Your task to perform on an android device: Set the phone to "Do not disturb". Image 0: 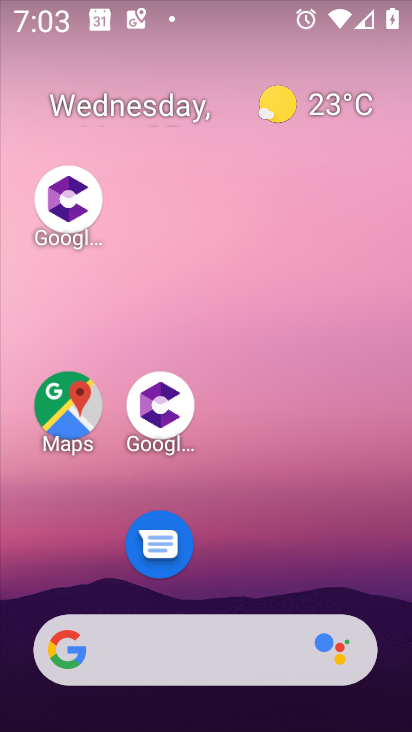
Step 0: drag from (306, 529) to (184, 88)
Your task to perform on an android device: Set the phone to "Do not disturb". Image 1: 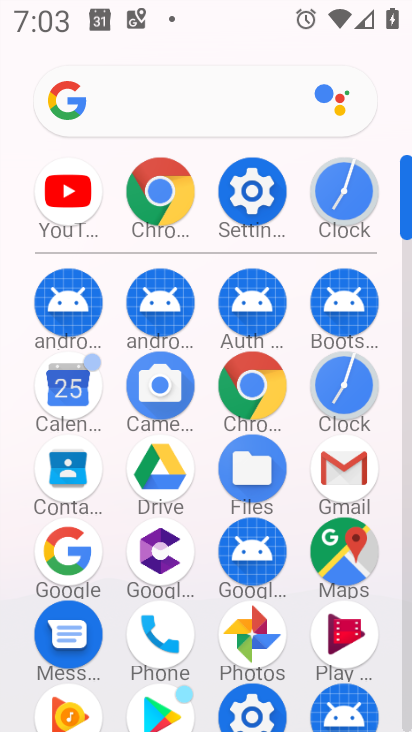
Step 1: click (256, 192)
Your task to perform on an android device: Set the phone to "Do not disturb". Image 2: 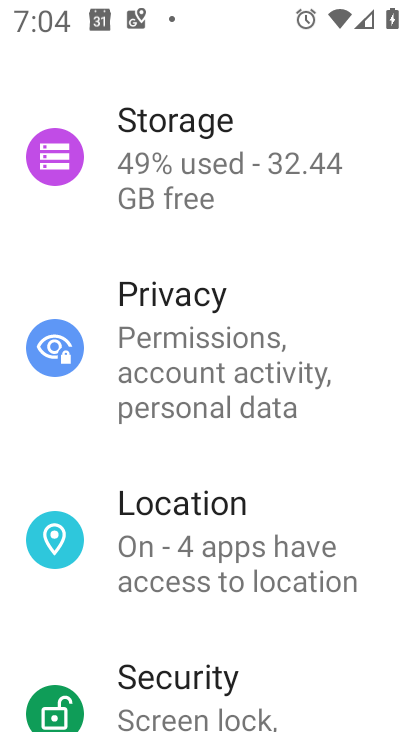
Step 2: drag from (258, 229) to (359, 731)
Your task to perform on an android device: Set the phone to "Do not disturb". Image 3: 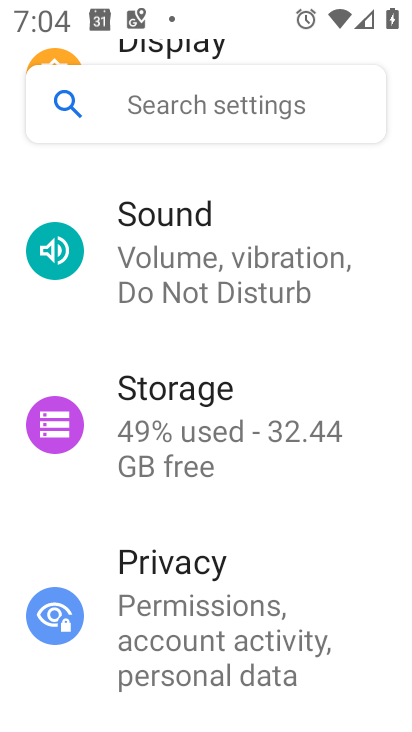
Step 3: click (172, 249)
Your task to perform on an android device: Set the phone to "Do not disturb". Image 4: 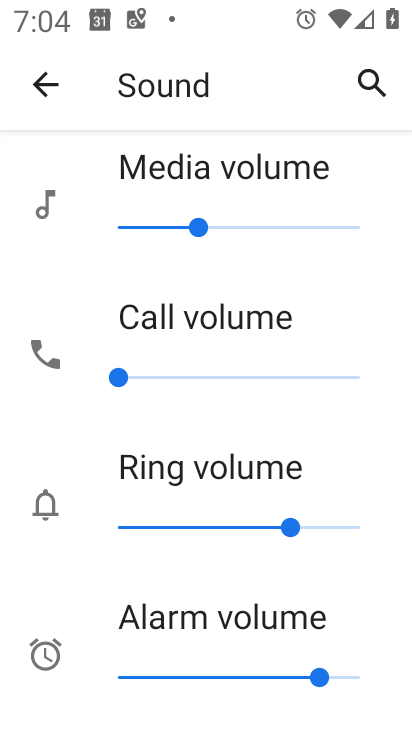
Step 4: drag from (229, 563) to (223, 270)
Your task to perform on an android device: Set the phone to "Do not disturb". Image 5: 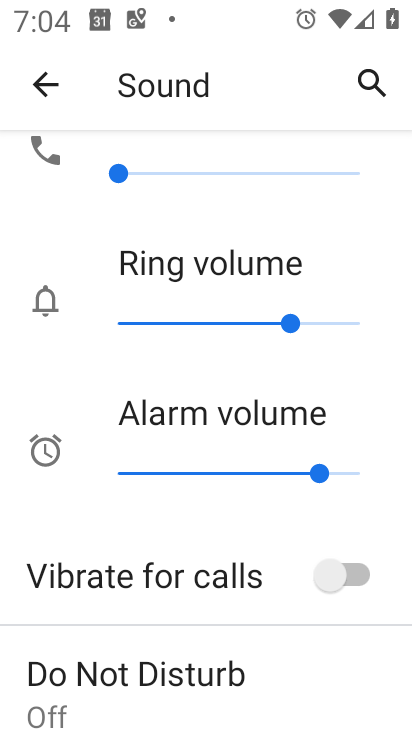
Step 5: click (95, 677)
Your task to perform on an android device: Set the phone to "Do not disturb". Image 6: 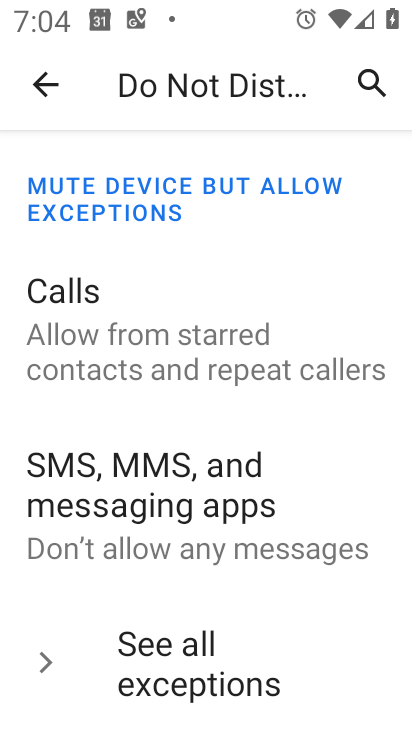
Step 6: drag from (300, 580) to (232, 189)
Your task to perform on an android device: Set the phone to "Do not disturb". Image 7: 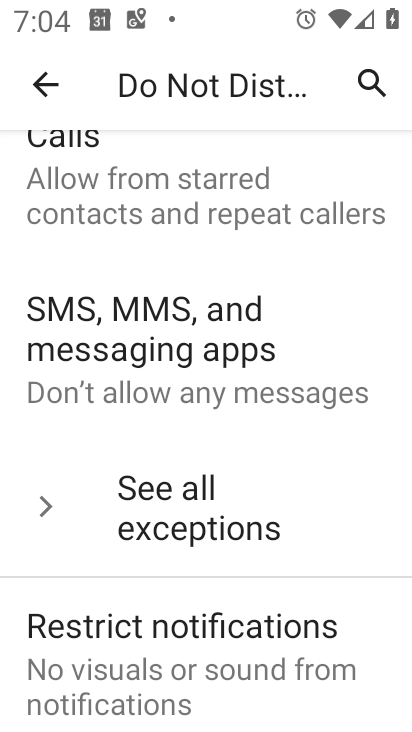
Step 7: drag from (297, 449) to (244, 114)
Your task to perform on an android device: Set the phone to "Do not disturb". Image 8: 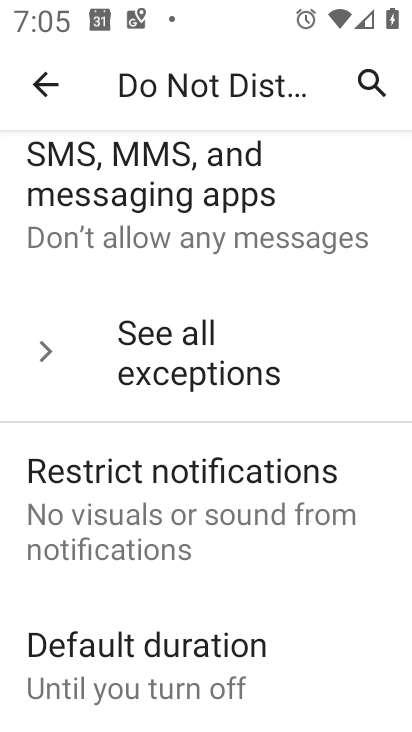
Step 8: drag from (206, 556) to (89, 174)
Your task to perform on an android device: Set the phone to "Do not disturb". Image 9: 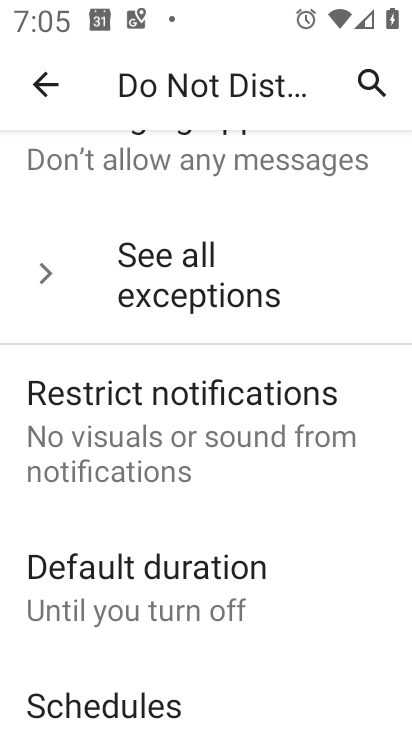
Step 9: drag from (238, 483) to (187, 162)
Your task to perform on an android device: Set the phone to "Do not disturb". Image 10: 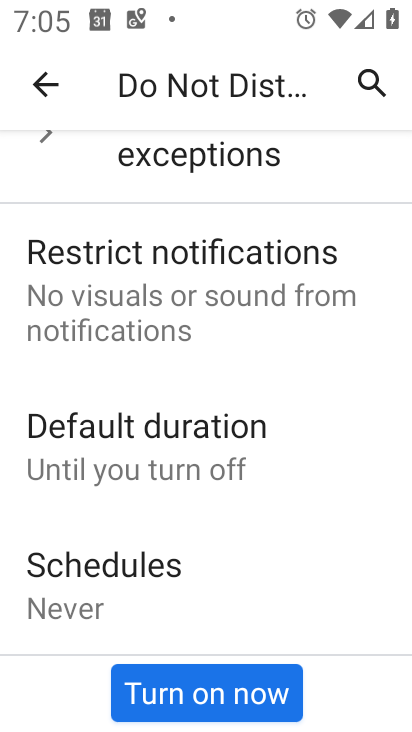
Step 10: click (209, 688)
Your task to perform on an android device: Set the phone to "Do not disturb". Image 11: 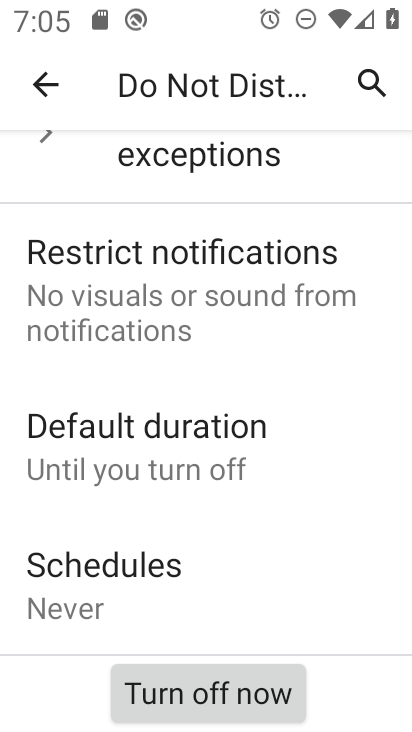
Step 11: task complete